Your task to perform on an android device: toggle pop-ups in chrome Image 0: 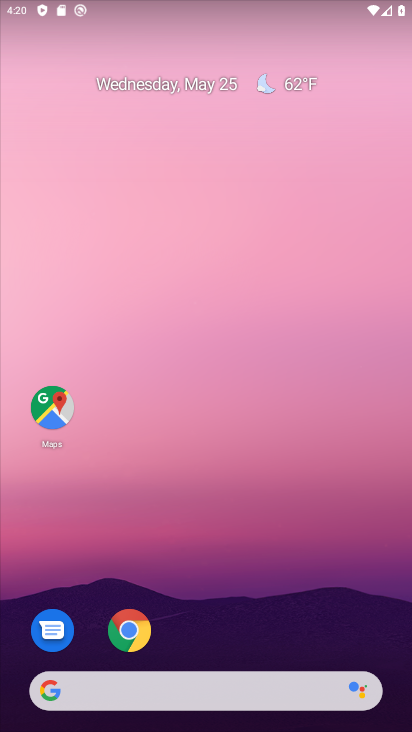
Step 0: click (131, 621)
Your task to perform on an android device: toggle pop-ups in chrome Image 1: 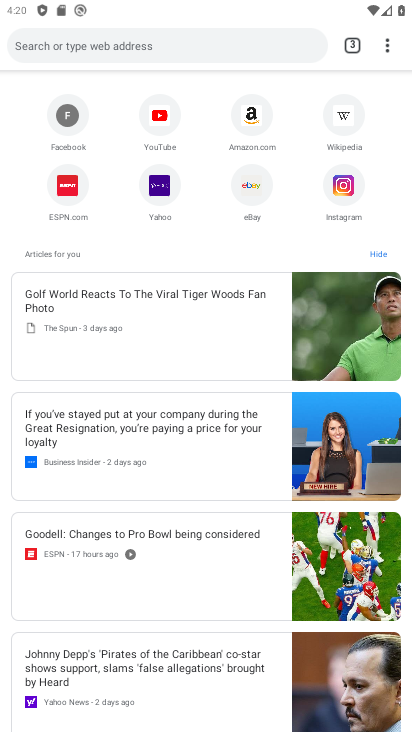
Step 1: drag from (388, 46) to (226, 382)
Your task to perform on an android device: toggle pop-ups in chrome Image 2: 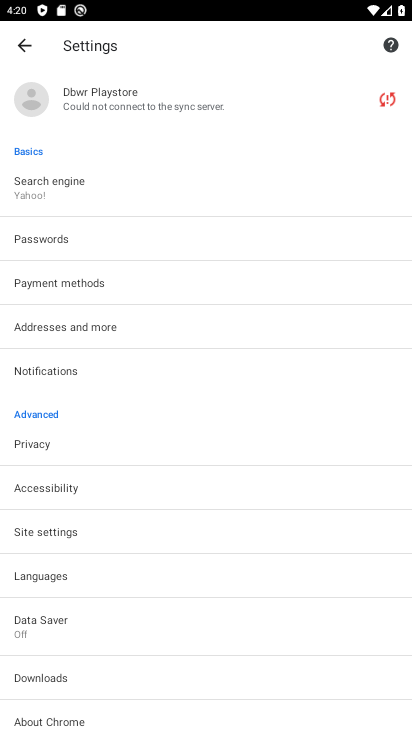
Step 2: click (70, 537)
Your task to perform on an android device: toggle pop-ups in chrome Image 3: 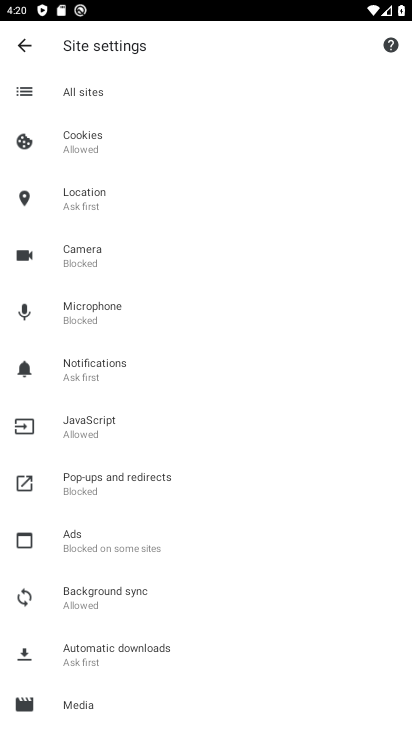
Step 3: click (120, 482)
Your task to perform on an android device: toggle pop-ups in chrome Image 4: 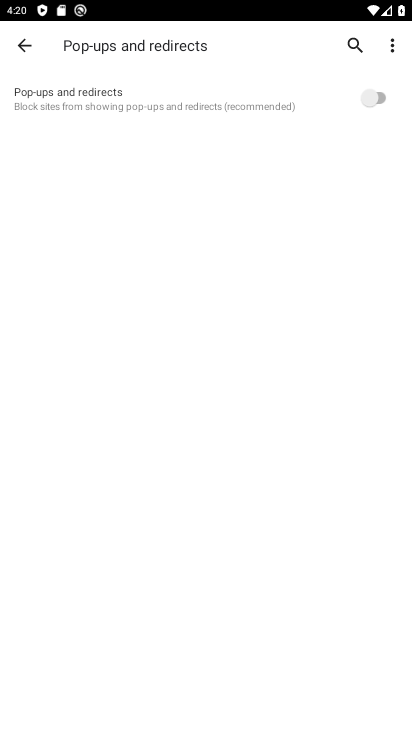
Step 4: click (375, 95)
Your task to perform on an android device: toggle pop-ups in chrome Image 5: 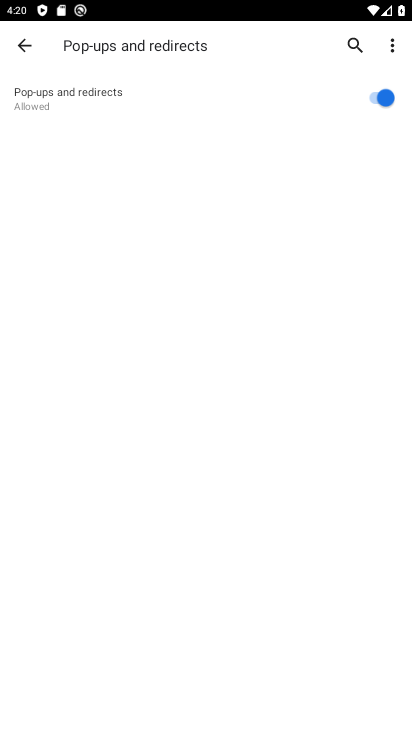
Step 5: task complete